Your task to perform on an android device: turn on showing notifications on the lock screen Image 0: 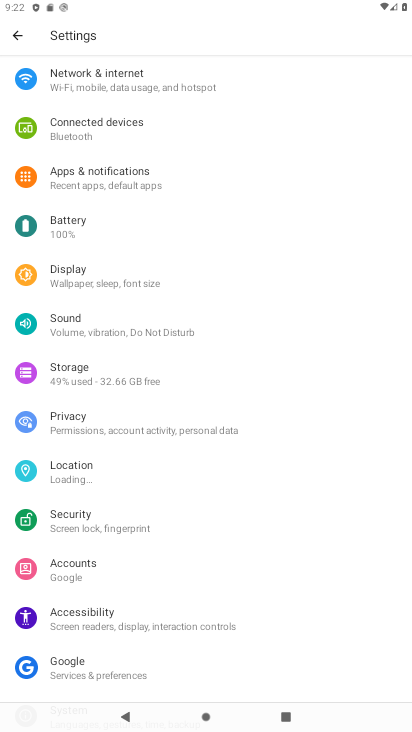
Step 0: click (116, 188)
Your task to perform on an android device: turn on showing notifications on the lock screen Image 1: 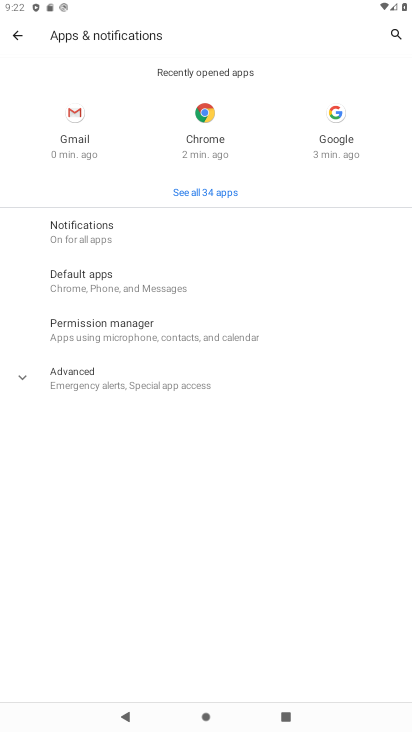
Step 1: click (118, 232)
Your task to perform on an android device: turn on showing notifications on the lock screen Image 2: 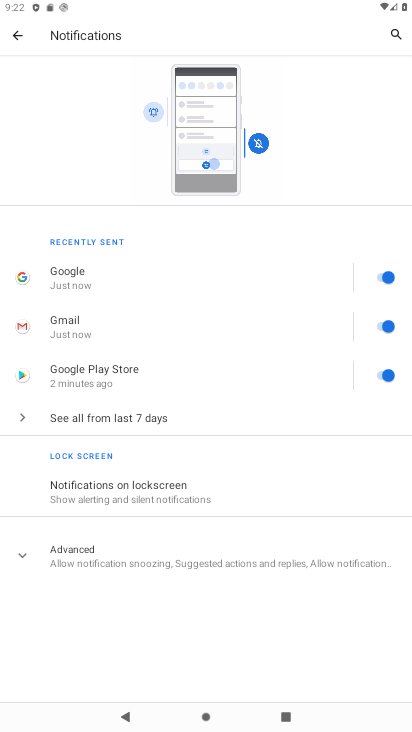
Step 2: click (172, 498)
Your task to perform on an android device: turn on showing notifications on the lock screen Image 3: 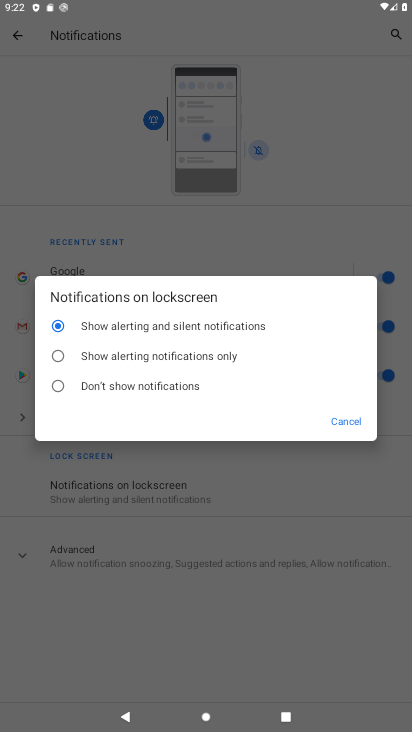
Step 3: task complete